Your task to perform on an android device: Open the web browser Image 0: 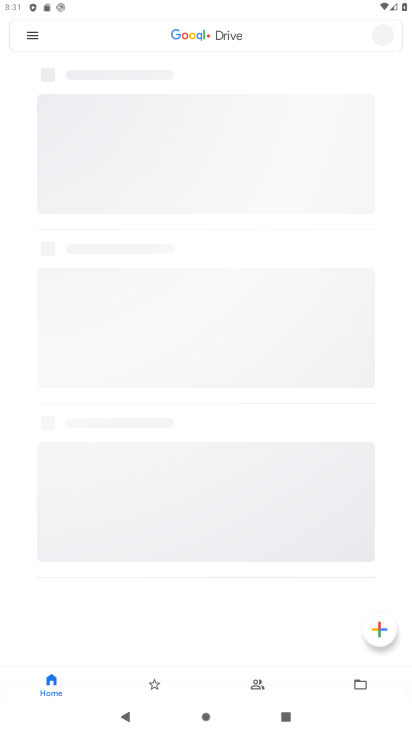
Step 0: press home button
Your task to perform on an android device: Open the web browser Image 1: 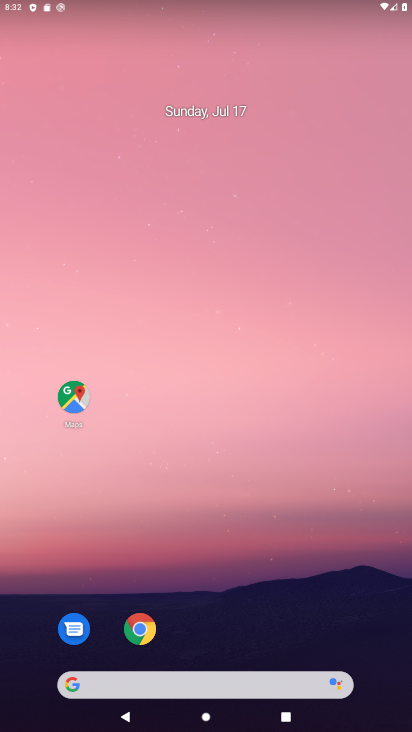
Step 1: click (149, 628)
Your task to perform on an android device: Open the web browser Image 2: 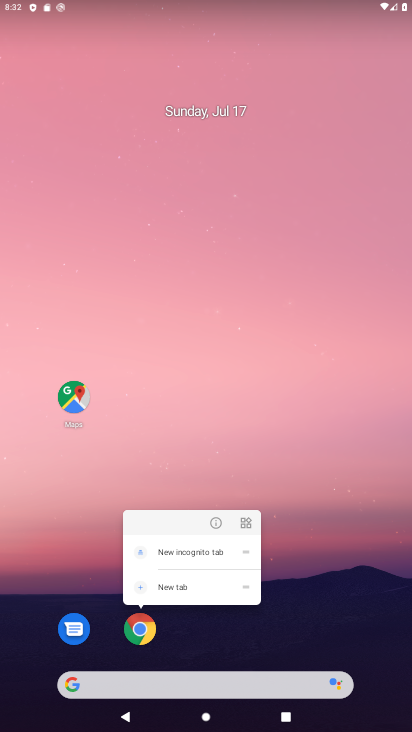
Step 2: click (136, 628)
Your task to perform on an android device: Open the web browser Image 3: 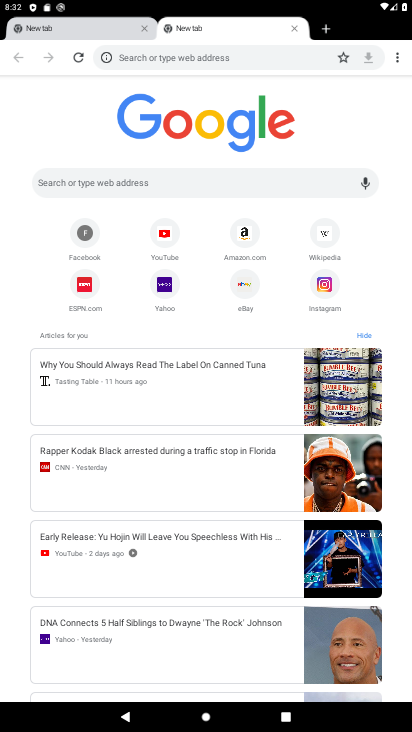
Step 3: task complete